Your task to perform on an android device: check data usage Image 0: 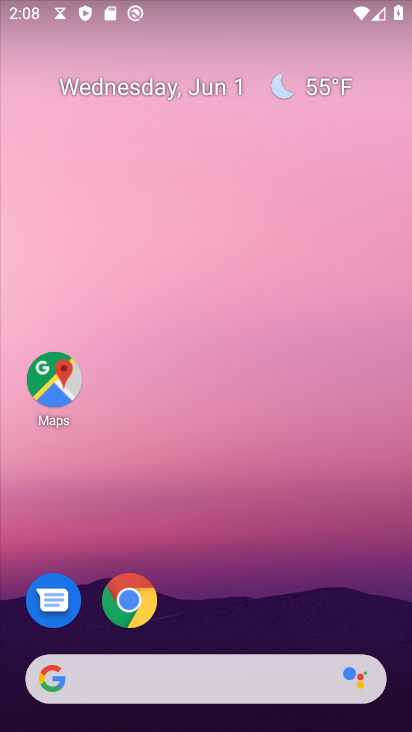
Step 0: drag from (244, 602) to (221, 193)
Your task to perform on an android device: check data usage Image 1: 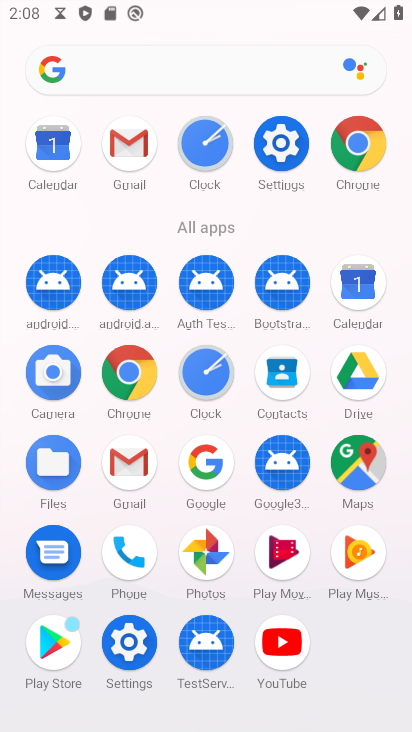
Step 1: click (287, 156)
Your task to perform on an android device: check data usage Image 2: 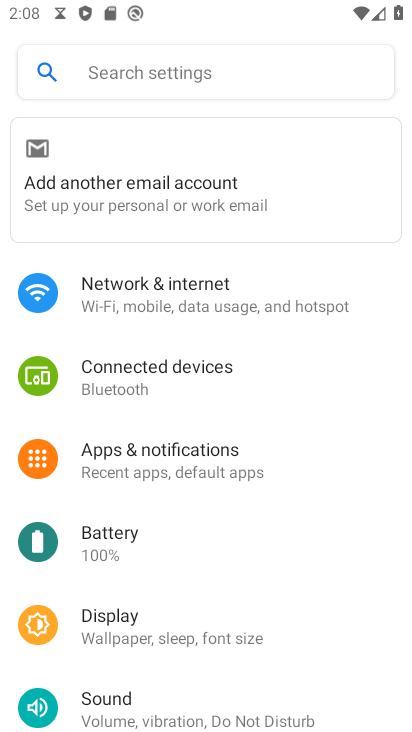
Step 2: click (252, 292)
Your task to perform on an android device: check data usage Image 3: 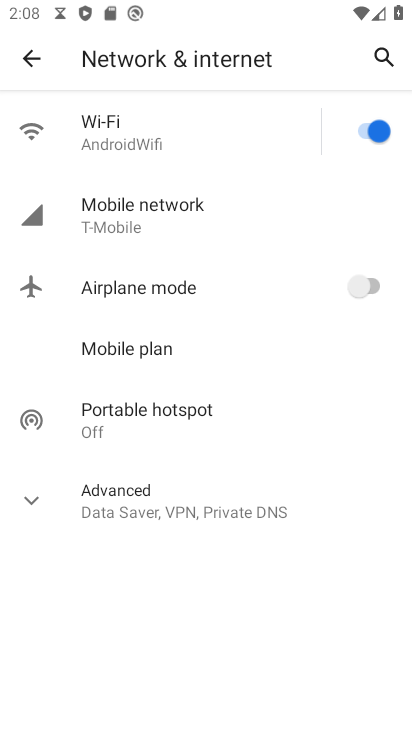
Step 3: click (150, 141)
Your task to perform on an android device: check data usage Image 4: 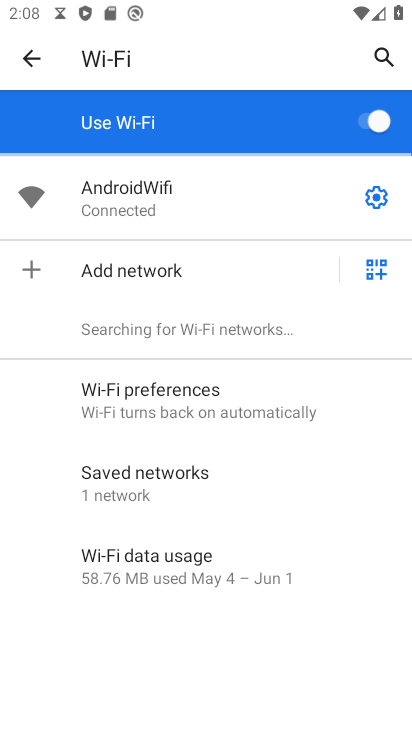
Step 4: click (141, 588)
Your task to perform on an android device: check data usage Image 5: 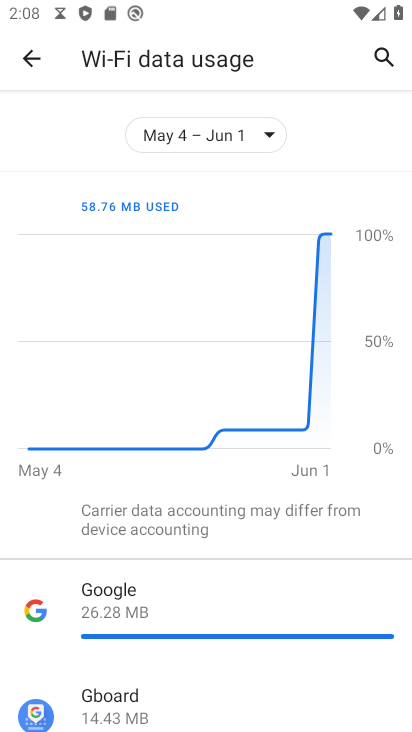
Step 5: task complete